Your task to perform on an android device: What's on my calendar tomorrow? Image 0: 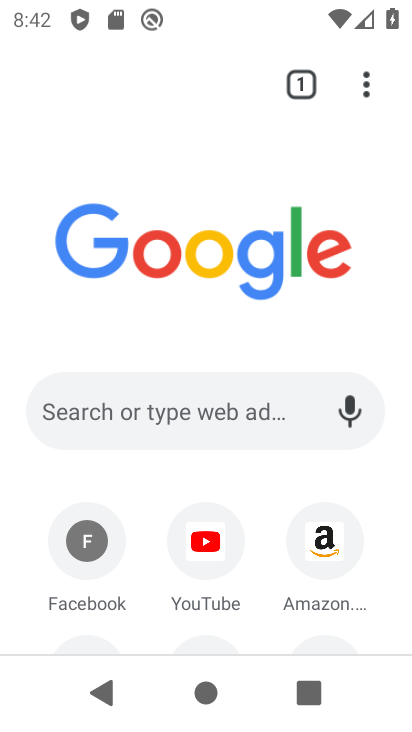
Step 0: press home button
Your task to perform on an android device: What's on my calendar tomorrow? Image 1: 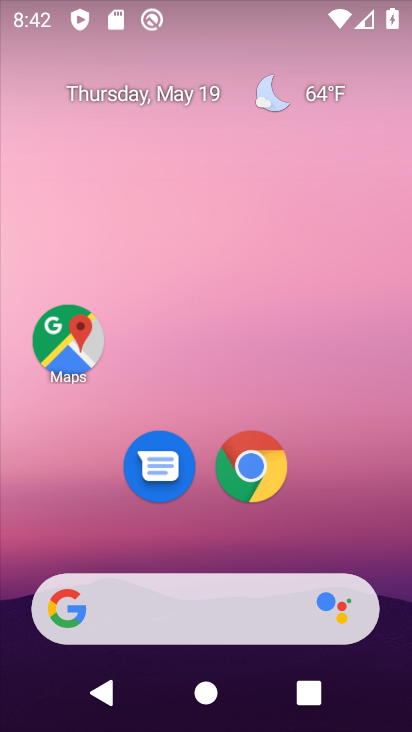
Step 1: drag from (395, 604) to (233, 6)
Your task to perform on an android device: What's on my calendar tomorrow? Image 2: 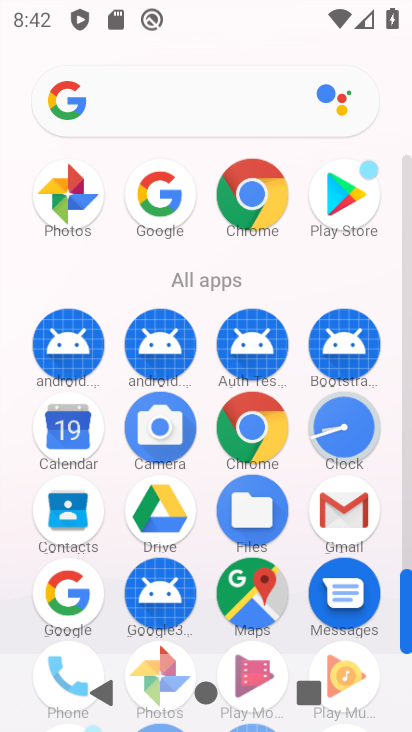
Step 2: click (66, 424)
Your task to perform on an android device: What's on my calendar tomorrow? Image 3: 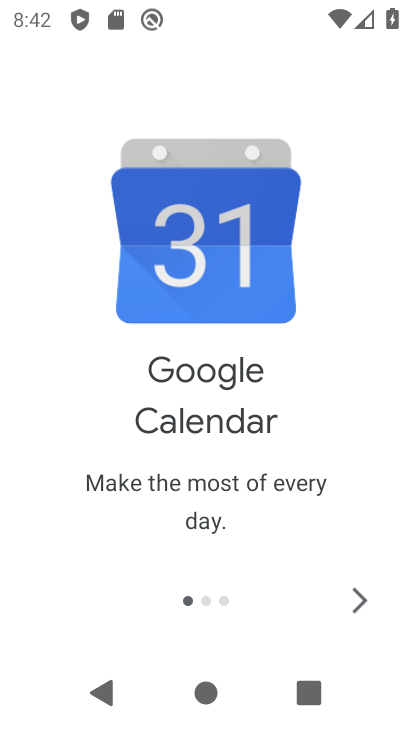
Step 3: click (364, 583)
Your task to perform on an android device: What's on my calendar tomorrow? Image 4: 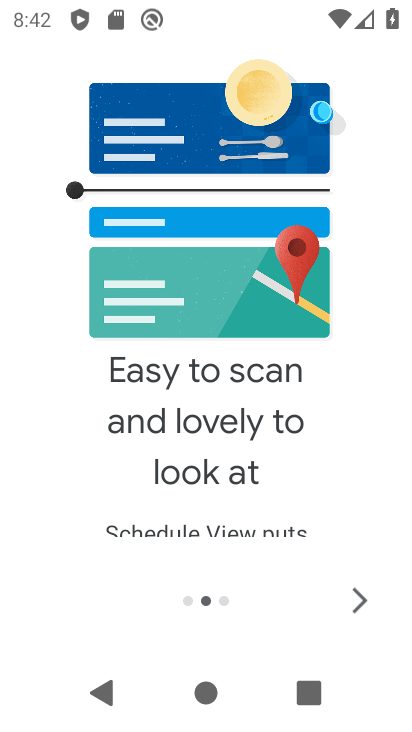
Step 4: click (364, 583)
Your task to perform on an android device: What's on my calendar tomorrow? Image 5: 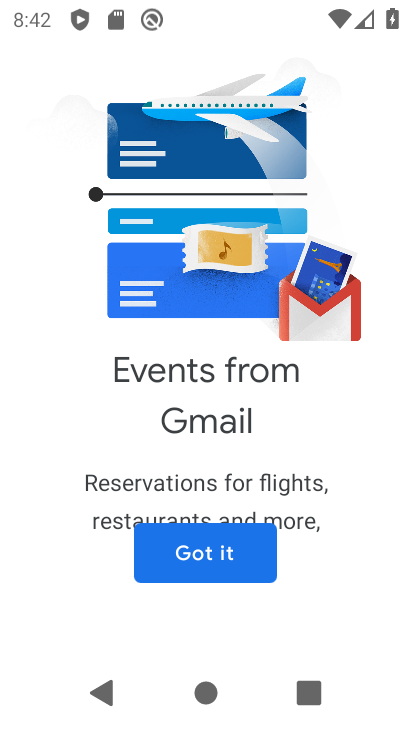
Step 5: click (181, 546)
Your task to perform on an android device: What's on my calendar tomorrow? Image 6: 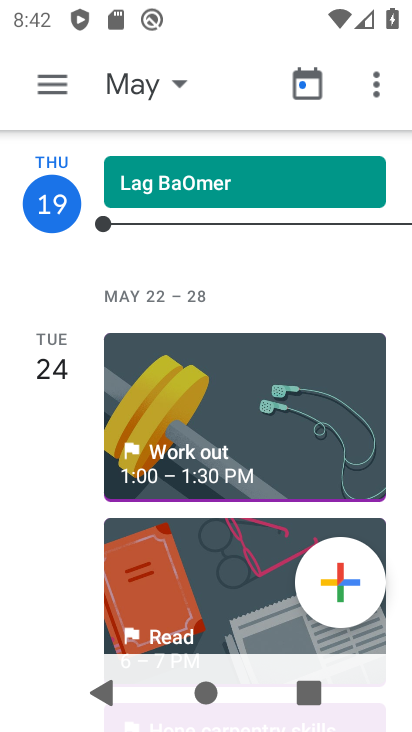
Step 6: click (114, 84)
Your task to perform on an android device: What's on my calendar tomorrow? Image 7: 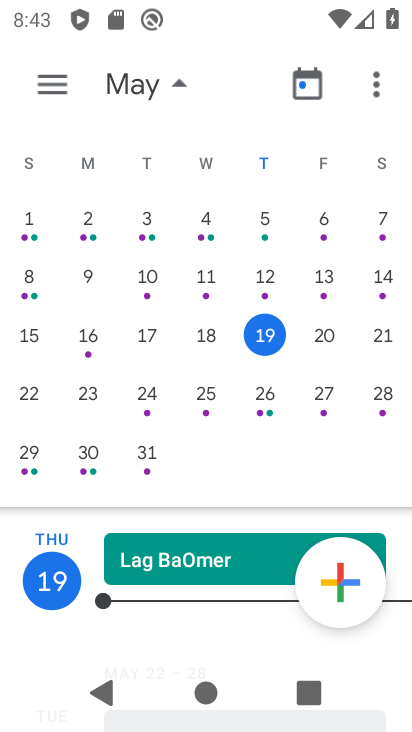
Step 7: click (317, 332)
Your task to perform on an android device: What's on my calendar tomorrow? Image 8: 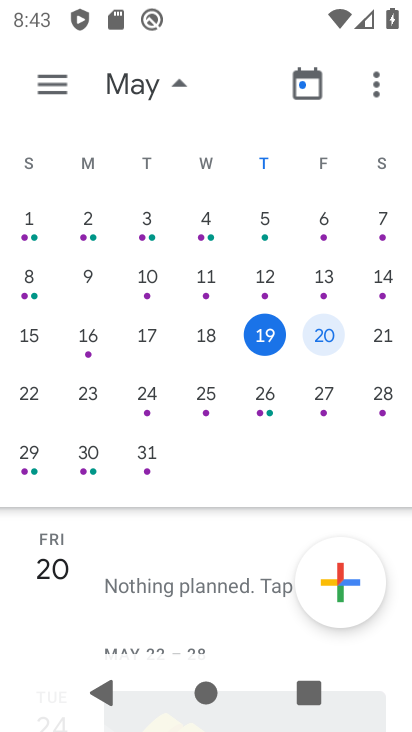
Step 8: click (362, 334)
Your task to perform on an android device: What's on my calendar tomorrow? Image 9: 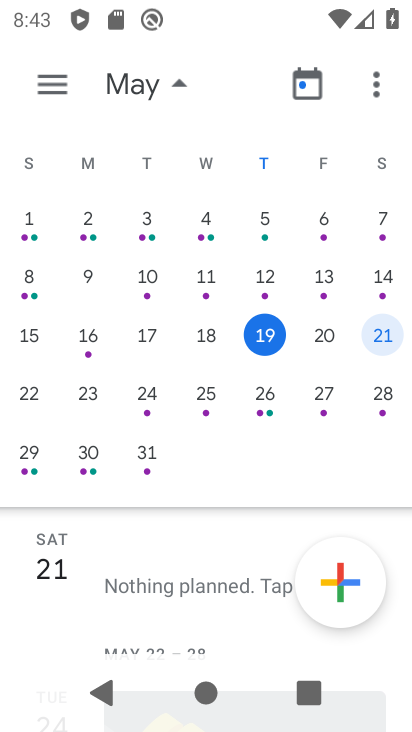
Step 9: task complete